Your task to perform on an android device: create a new album in the google photos Image 0: 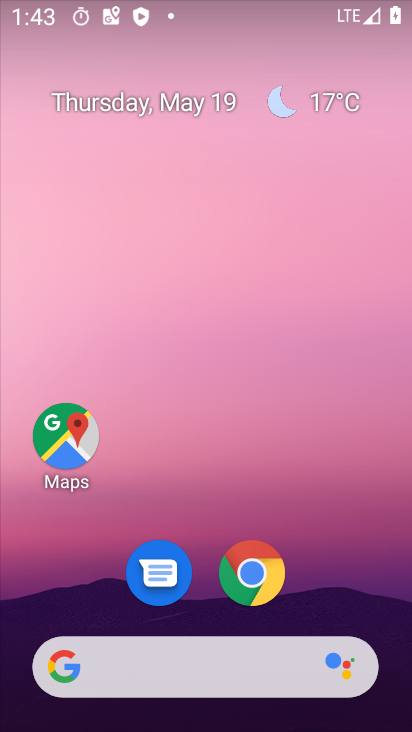
Step 0: drag from (314, 627) to (305, 102)
Your task to perform on an android device: create a new album in the google photos Image 1: 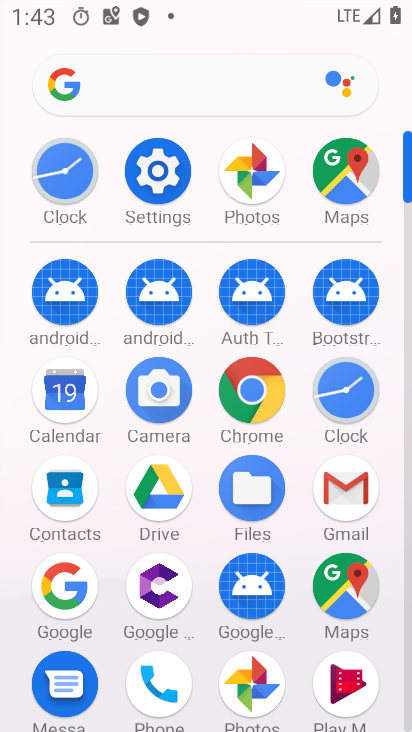
Step 1: click (253, 678)
Your task to perform on an android device: create a new album in the google photos Image 2: 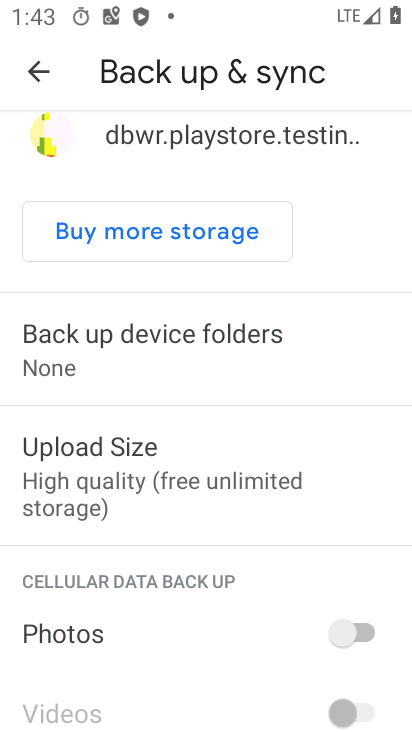
Step 2: click (27, 54)
Your task to perform on an android device: create a new album in the google photos Image 3: 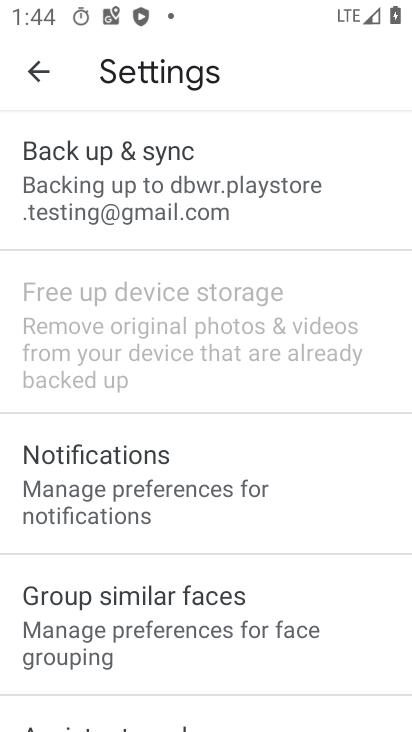
Step 3: click (32, 61)
Your task to perform on an android device: create a new album in the google photos Image 4: 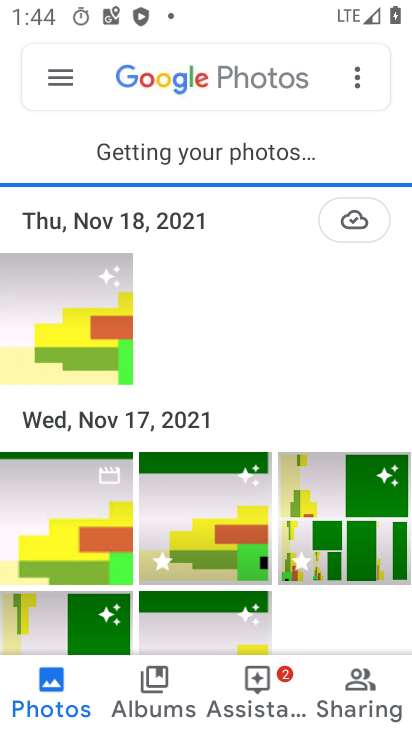
Step 4: click (356, 66)
Your task to perform on an android device: create a new album in the google photos Image 5: 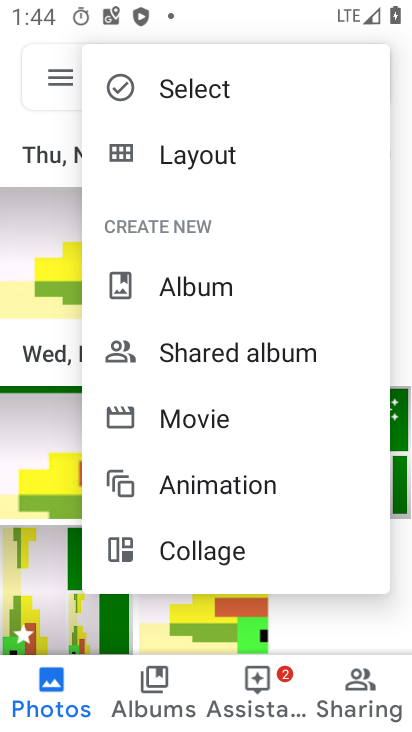
Step 5: click (176, 271)
Your task to perform on an android device: create a new album in the google photos Image 6: 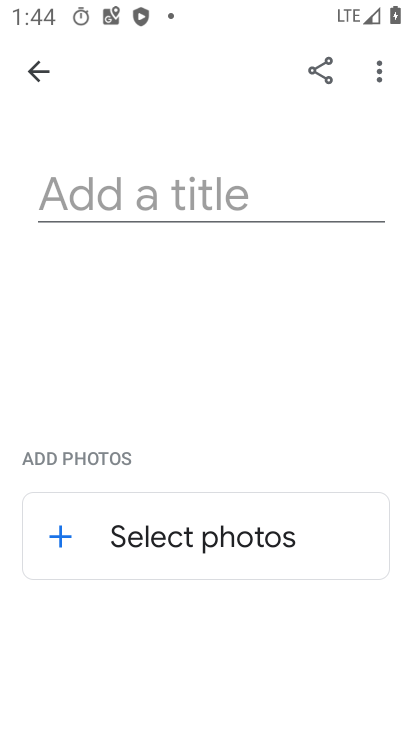
Step 6: click (130, 183)
Your task to perform on an android device: create a new album in the google photos Image 7: 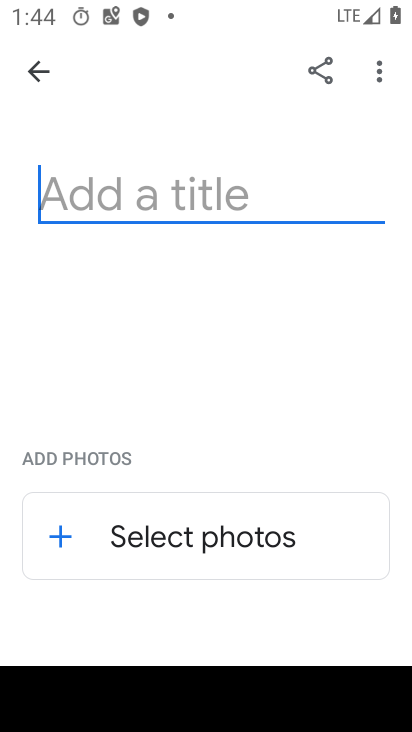
Step 7: type "fgfgvg"
Your task to perform on an android device: create a new album in the google photos Image 8: 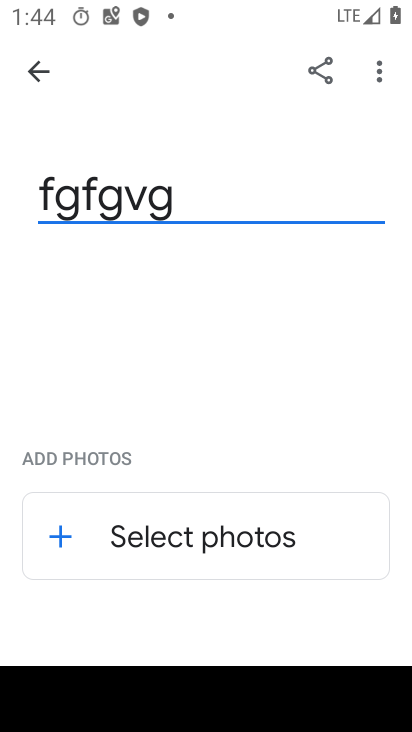
Step 8: click (190, 558)
Your task to perform on an android device: create a new album in the google photos Image 9: 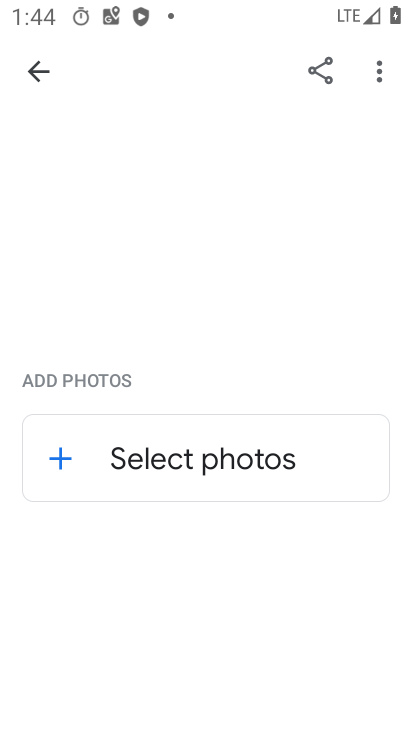
Step 9: click (154, 451)
Your task to perform on an android device: create a new album in the google photos Image 10: 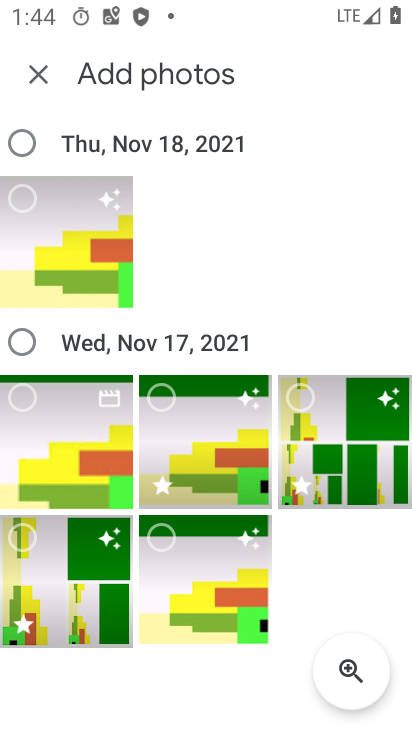
Step 10: click (24, 140)
Your task to perform on an android device: create a new album in the google photos Image 11: 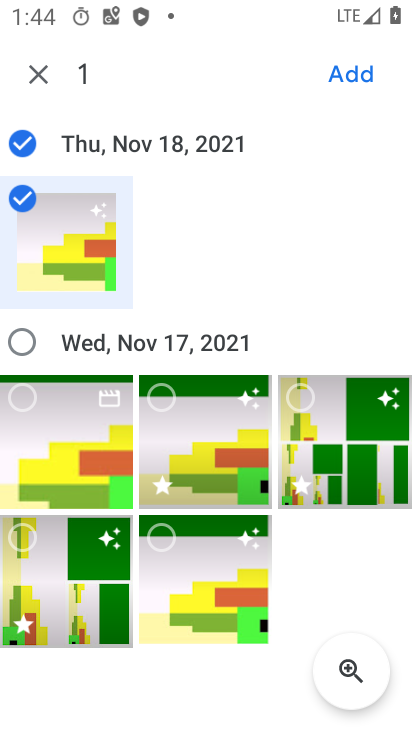
Step 11: click (334, 75)
Your task to perform on an android device: create a new album in the google photos Image 12: 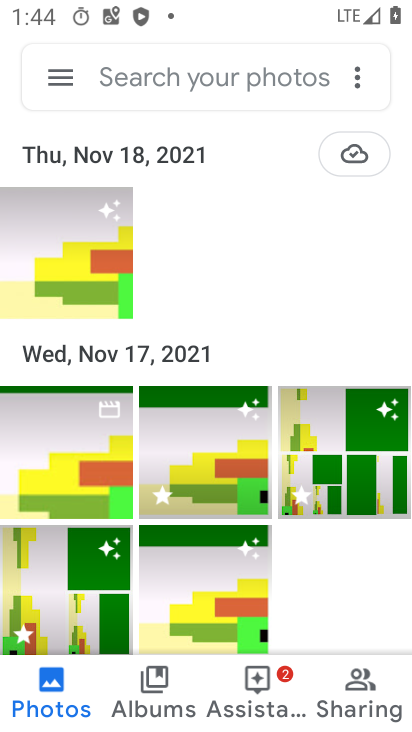
Step 12: task complete